Your task to perform on an android device: allow notifications from all sites in the chrome app Image 0: 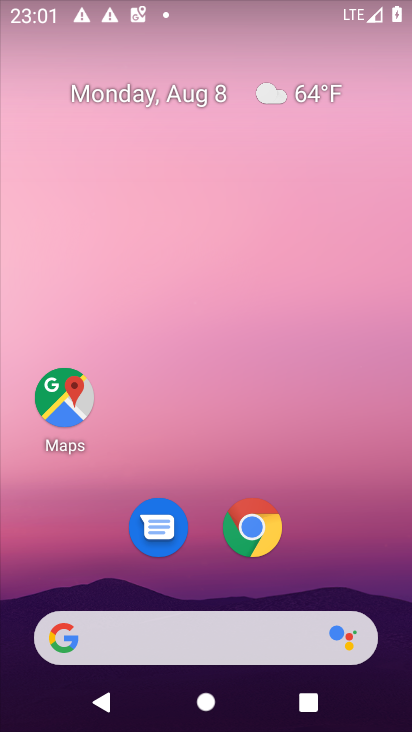
Step 0: click (257, 522)
Your task to perform on an android device: allow notifications from all sites in the chrome app Image 1: 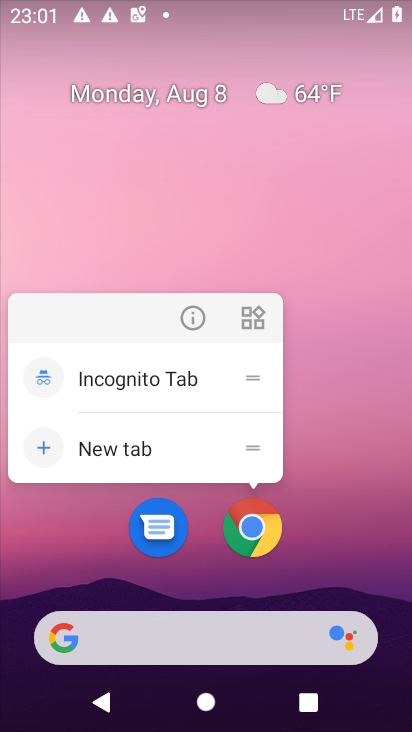
Step 1: click (253, 526)
Your task to perform on an android device: allow notifications from all sites in the chrome app Image 2: 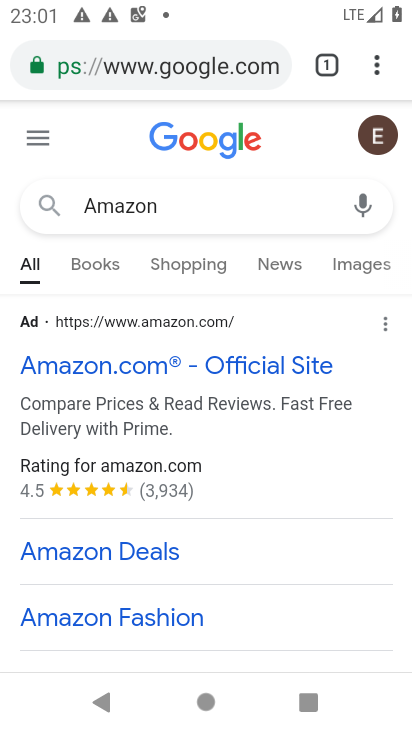
Step 2: click (379, 62)
Your task to perform on an android device: allow notifications from all sites in the chrome app Image 3: 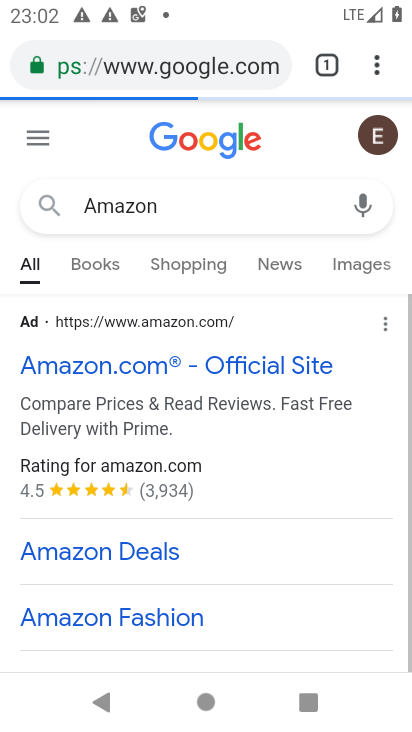
Step 3: click (378, 63)
Your task to perform on an android device: allow notifications from all sites in the chrome app Image 4: 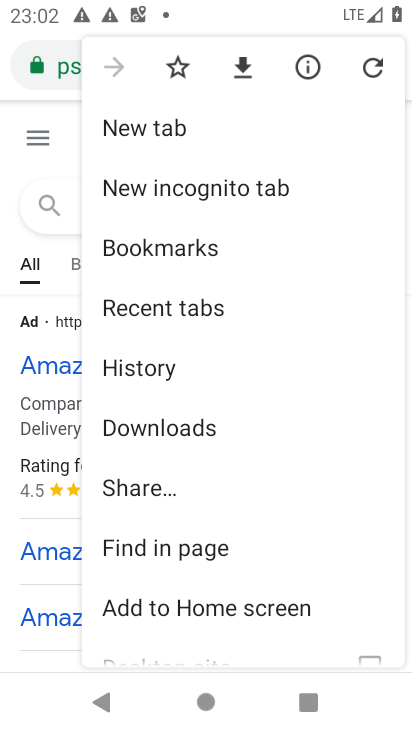
Step 4: drag from (296, 547) to (286, 255)
Your task to perform on an android device: allow notifications from all sites in the chrome app Image 5: 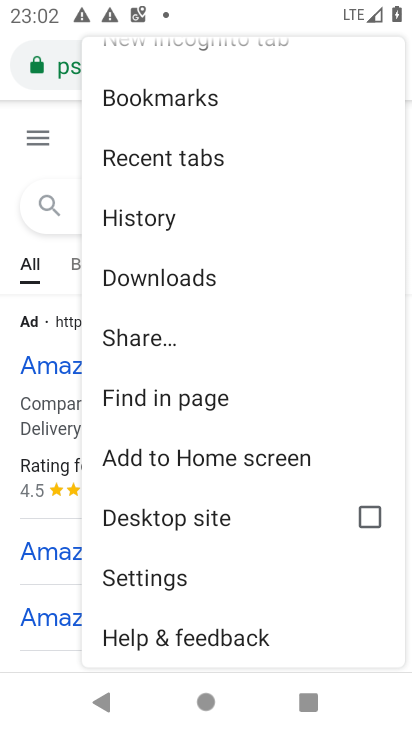
Step 5: click (119, 578)
Your task to perform on an android device: allow notifications from all sites in the chrome app Image 6: 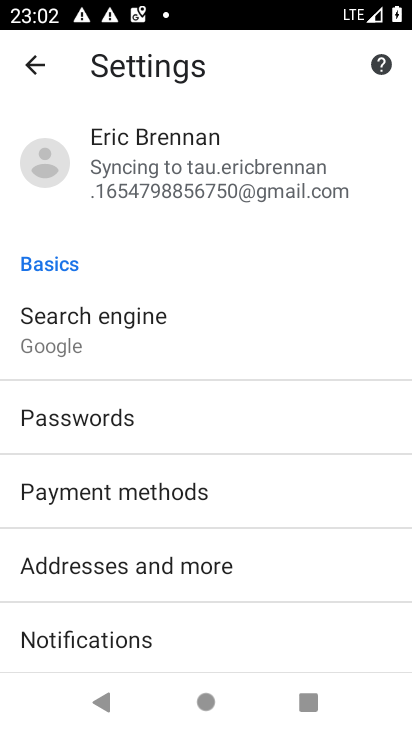
Step 6: drag from (274, 611) to (294, 401)
Your task to perform on an android device: allow notifications from all sites in the chrome app Image 7: 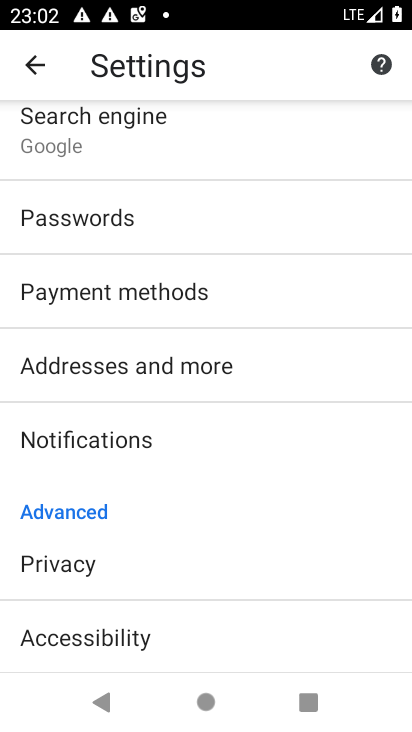
Step 7: click (94, 439)
Your task to perform on an android device: allow notifications from all sites in the chrome app Image 8: 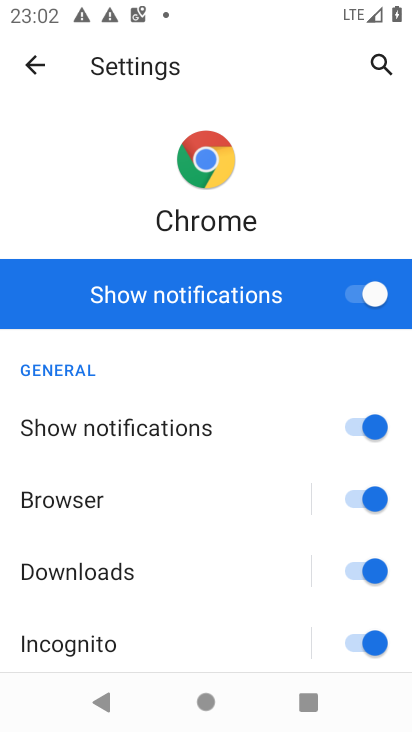
Step 8: task complete